Your task to perform on an android device: delete location history Image 0: 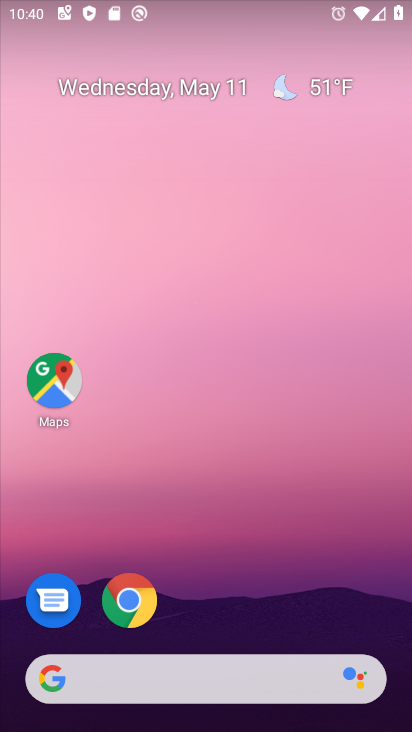
Step 0: drag from (222, 641) to (81, 62)
Your task to perform on an android device: delete location history Image 1: 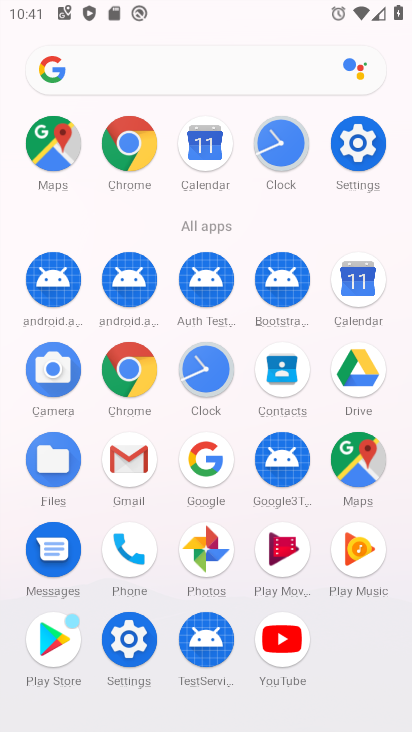
Step 1: click (358, 483)
Your task to perform on an android device: delete location history Image 2: 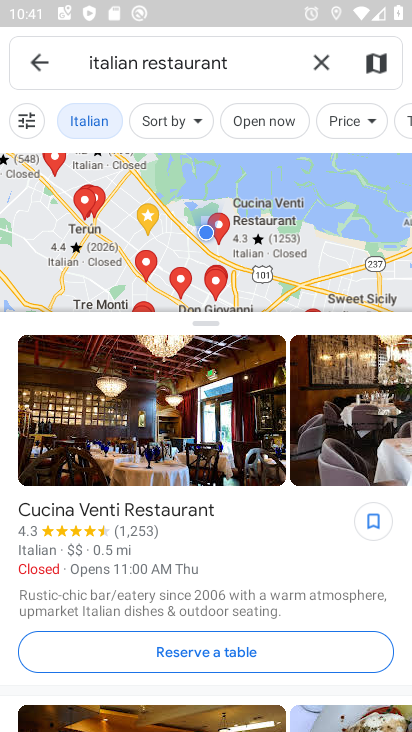
Step 2: click (38, 77)
Your task to perform on an android device: delete location history Image 3: 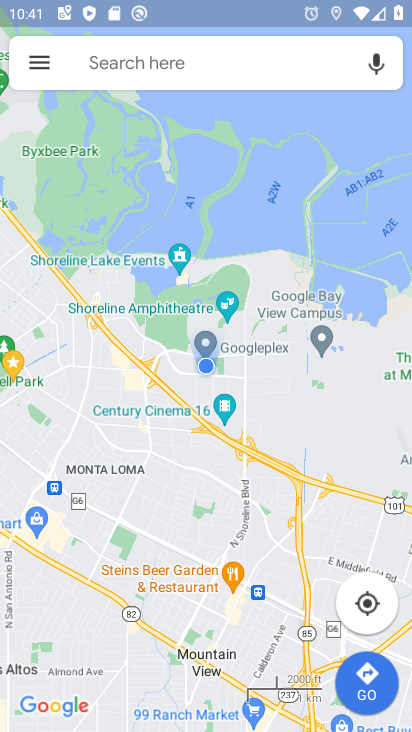
Step 3: click (38, 77)
Your task to perform on an android device: delete location history Image 4: 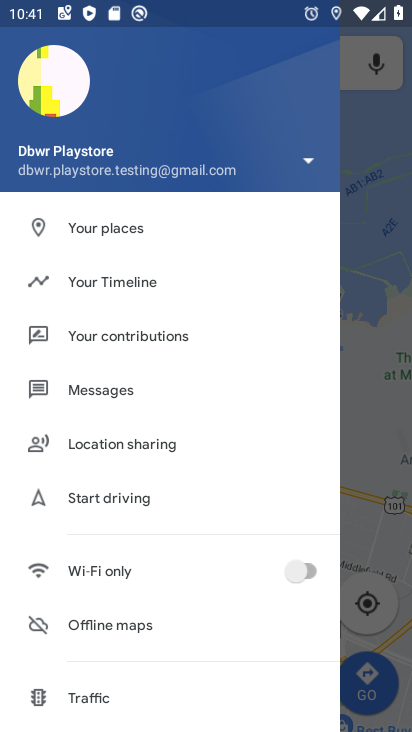
Step 4: click (100, 290)
Your task to perform on an android device: delete location history Image 5: 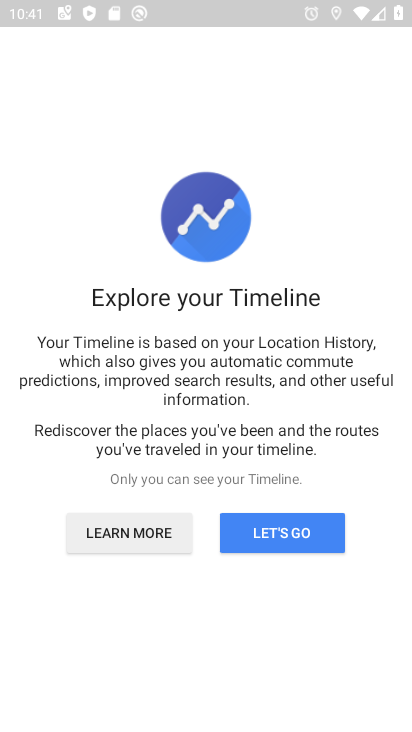
Step 5: click (259, 521)
Your task to perform on an android device: delete location history Image 6: 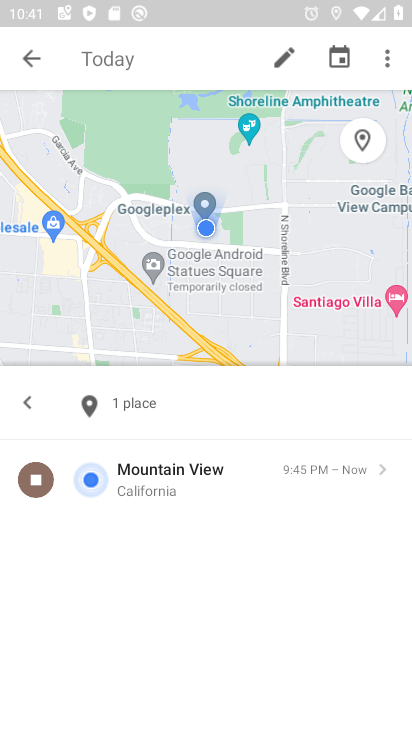
Step 6: click (378, 58)
Your task to perform on an android device: delete location history Image 7: 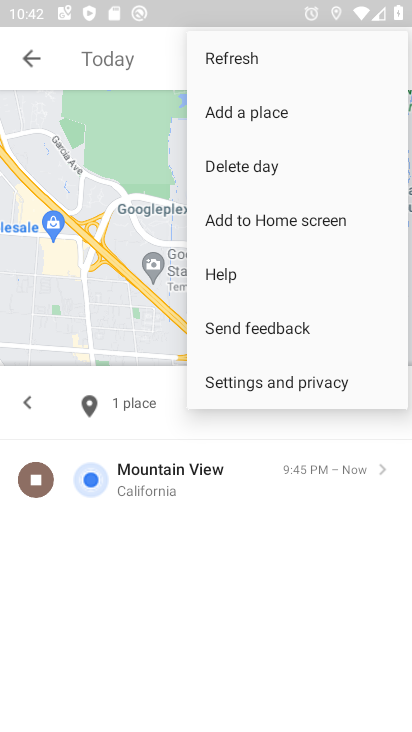
Step 7: click (253, 383)
Your task to perform on an android device: delete location history Image 8: 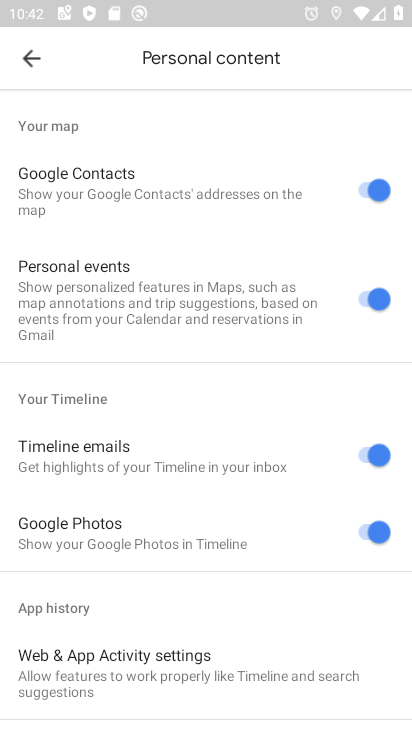
Step 8: drag from (206, 565) to (150, 157)
Your task to perform on an android device: delete location history Image 9: 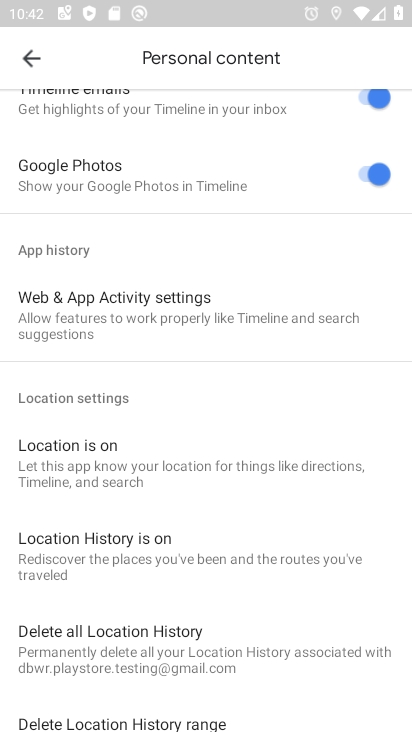
Step 9: click (213, 618)
Your task to perform on an android device: delete location history Image 10: 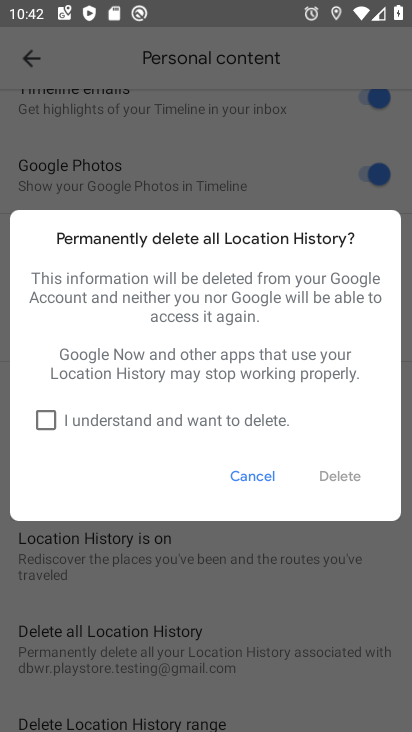
Step 10: click (42, 427)
Your task to perform on an android device: delete location history Image 11: 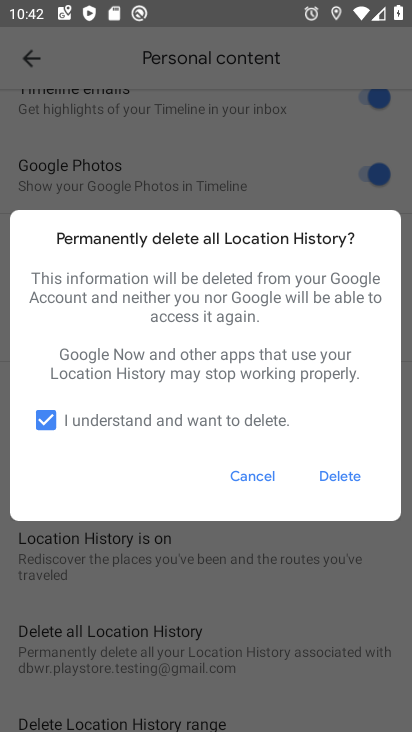
Step 11: click (337, 473)
Your task to perform on an android device: delete location history Image 12: 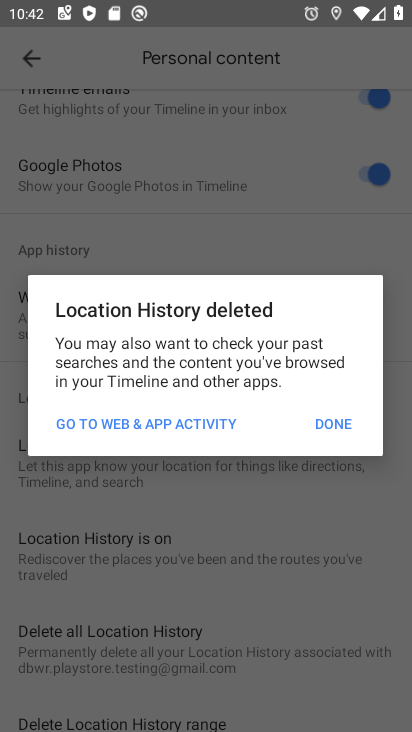
Step 12: click (339, 409)
Your task to perform on an android device: delete location history Image 13: 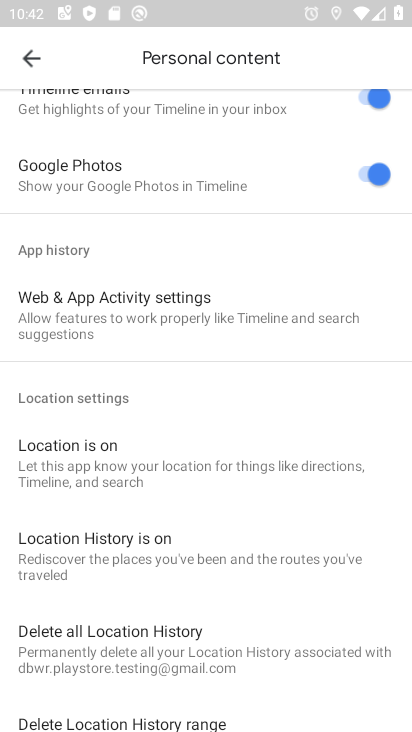
Step 13: task complete